Your task to perform on an android device: Go to CNN.com Image 0: 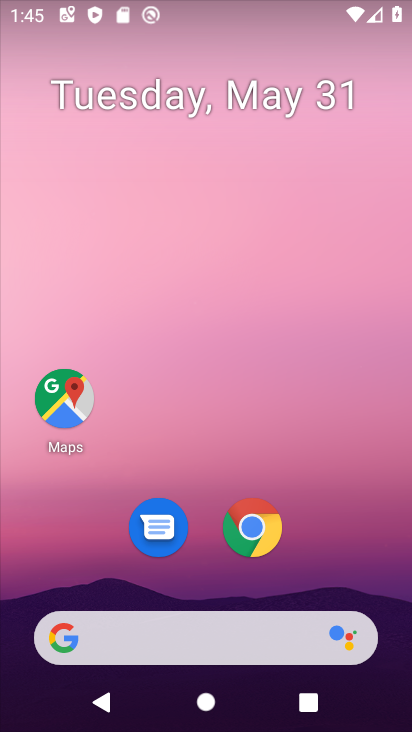
Step 0: drag from (353, 481) to (396, 56)
Your task to perform on an android device: Go to CNN.com Image 1: 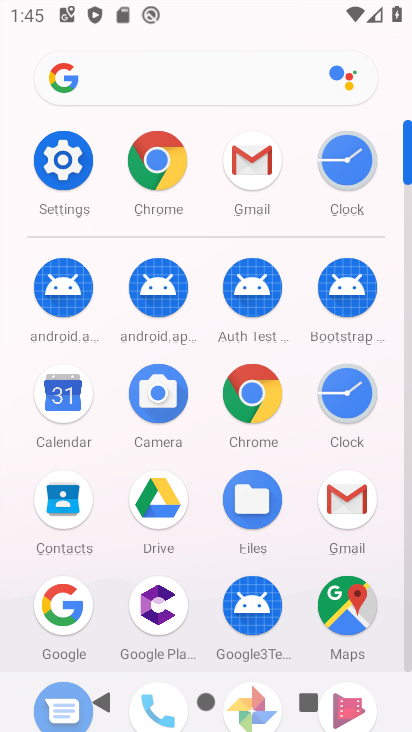
Step 1: click (154, 167)
Your task to perform on an android device: Go to CNN.com Image 2: 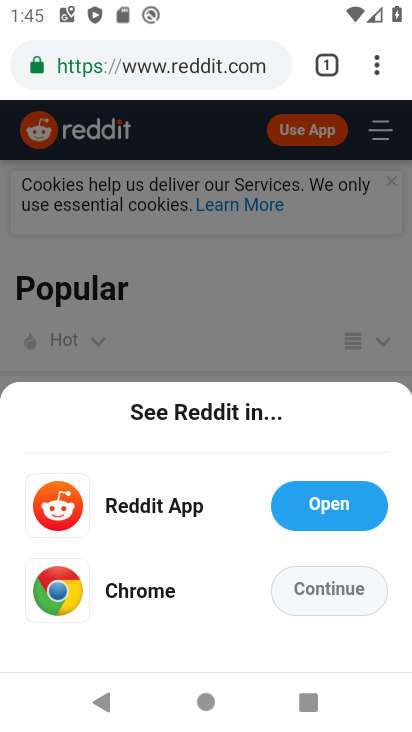
Step 2: click (142, 62)
Your task to perform on an android device: Go to CNN.com Image 3: 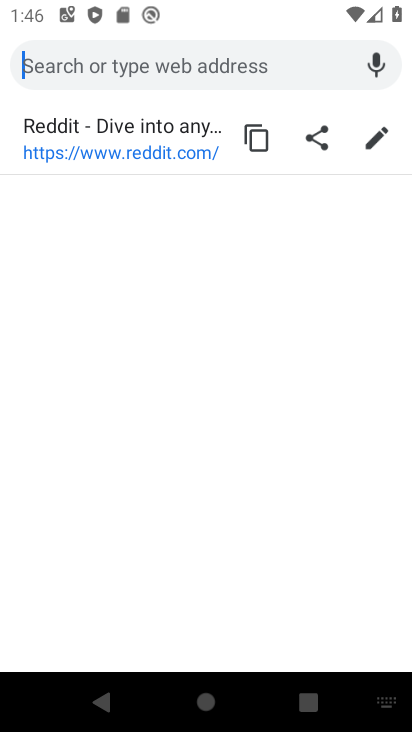
Step 3: type "cnn"
Your task to perform on an android device: Go to CNN.com Image 4: 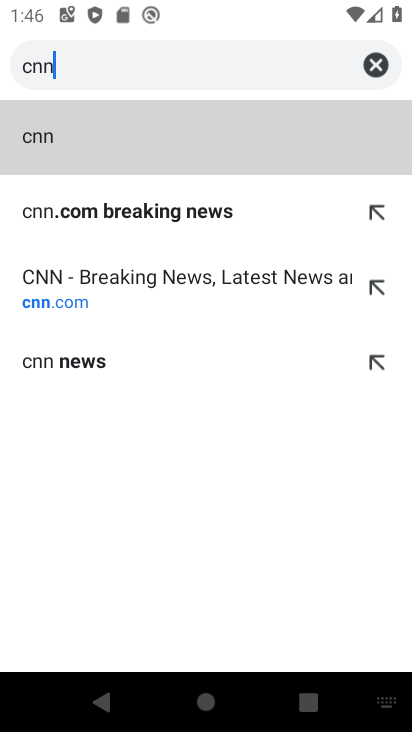
Step 4: click (101, 295)
Your task to perform on an android device: Go to CNN.com Image 5: 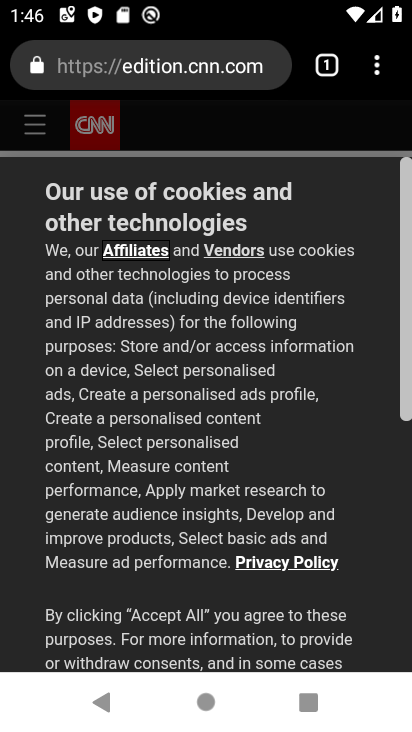
Step 5: task complete